Your task to perform on an android device: turn notification dots on Image 0: 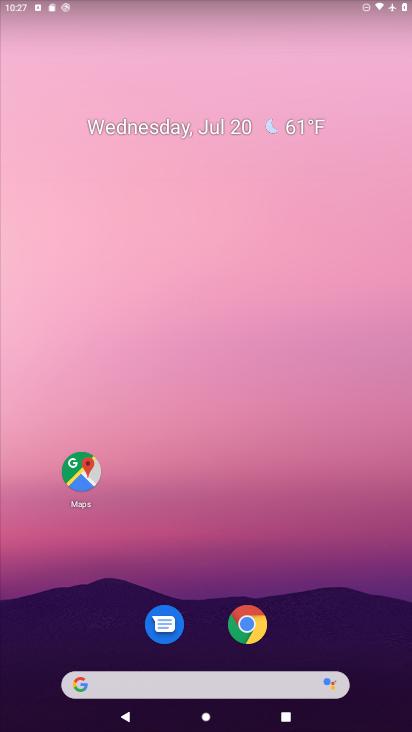
Step 0: drag from (206, 575) to (206, 171)
Your task to perform on an android device: turn notification dots on Image 1: 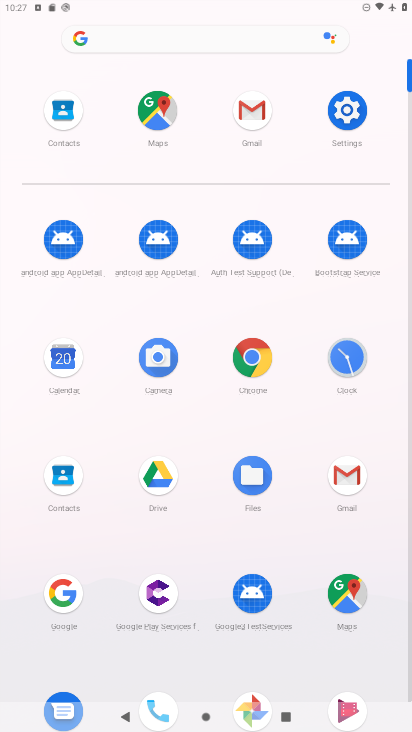
Step 1: click (343, 120)
Your task to perform on an android device: turn notification dots on Image 2: 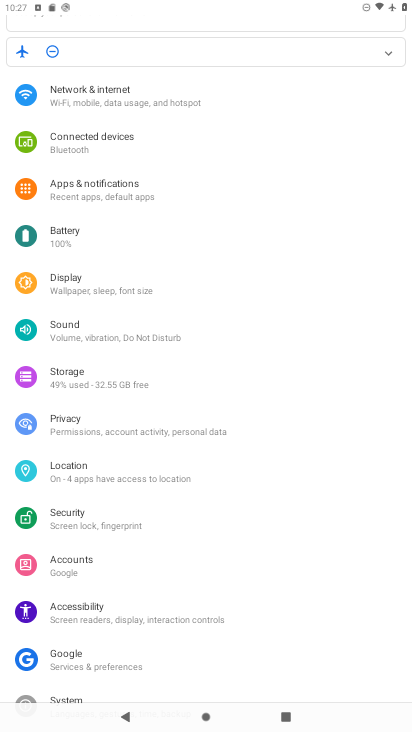
Step 2: click (159, 185)
Your task to perform on an android device: turn notification dots on Image 3: 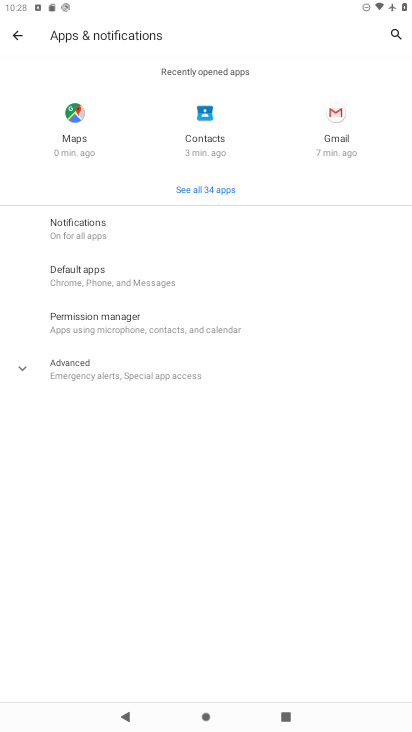
Step 3: click (122, 225)
Your task to perform on an android device: turn notification dots on Image 4: 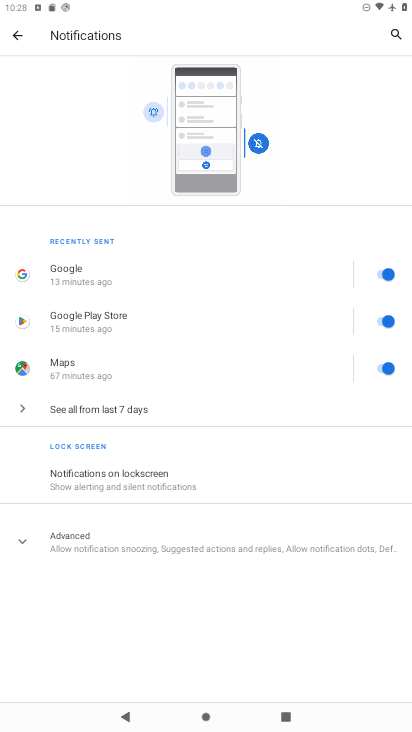
Step 4: click (112, 539)
Your task to perform on an android device: turn notification dots on Image 5: 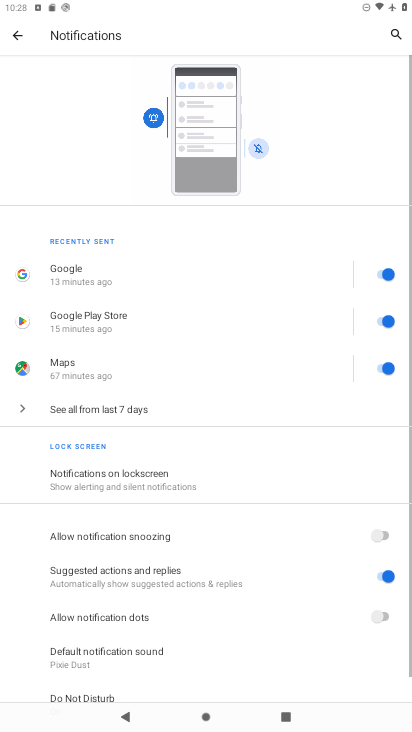
Step 5: drag from (214, 573) to (204, 322)
Your task to perform on an android device: turn notification dots on Image 6: 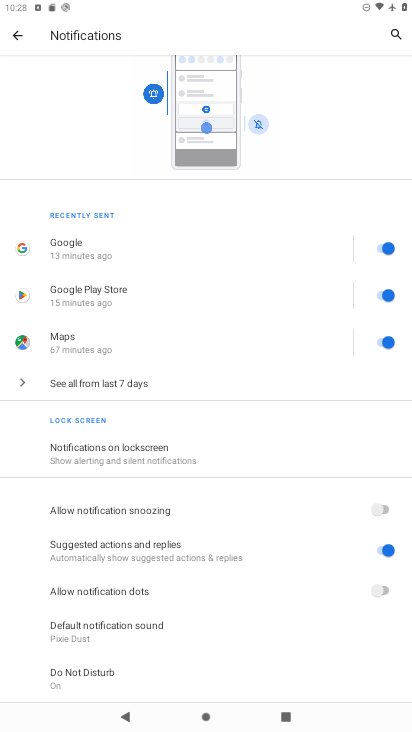
Step 6: click (390, 586)
Your task to perform on an android device: turn notification dots on Image 7: 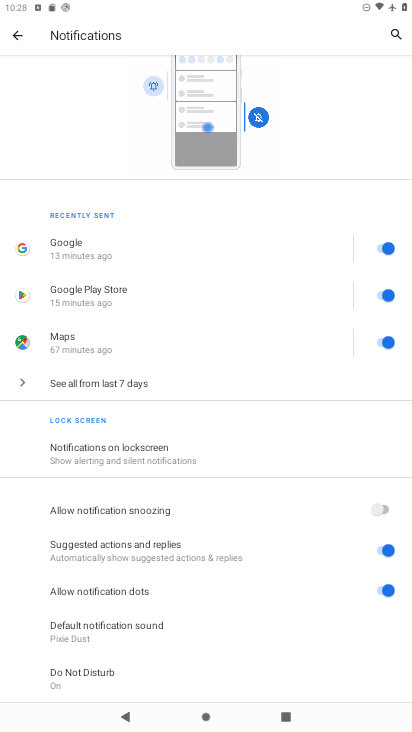
Step 7: task complete